Your task to perform on an android device: Go to CNN.com Image 0: 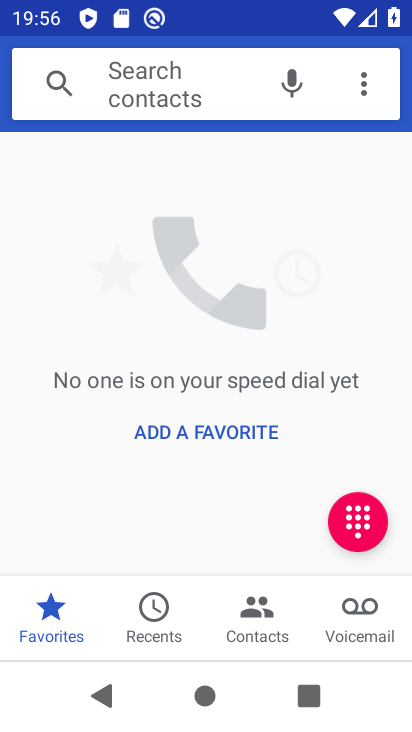
Step 0: press home button
Your task to perform on an android device: Go to CNN.com Image 1: 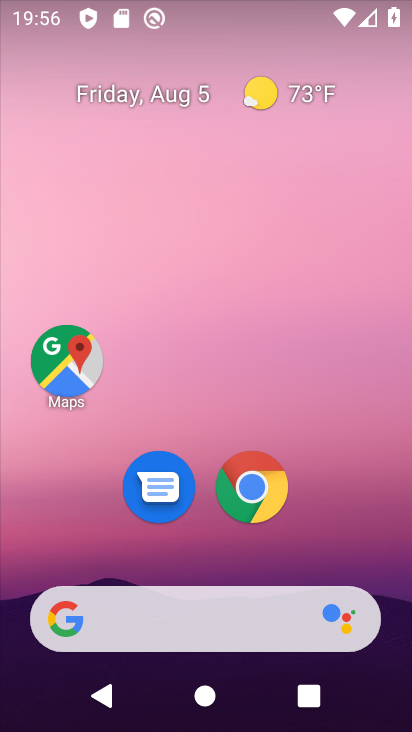
Step 1: click (258, 480)
Your task to perform on an android device: Go to CNN.com Image 2: 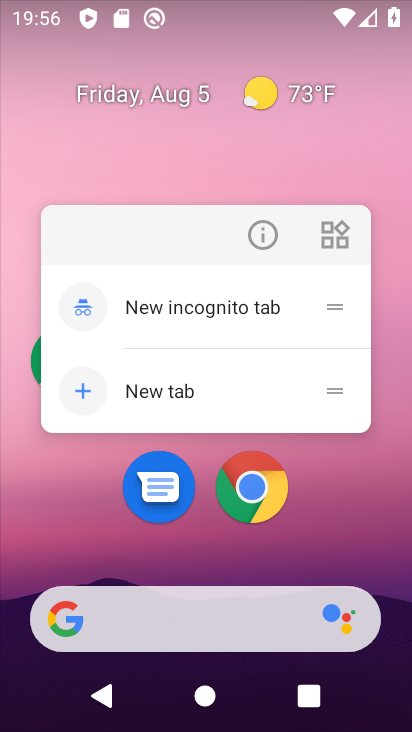
Step 2: click (253, 492)
Your task to perform on an android device: Go to CNN.com Image 3: 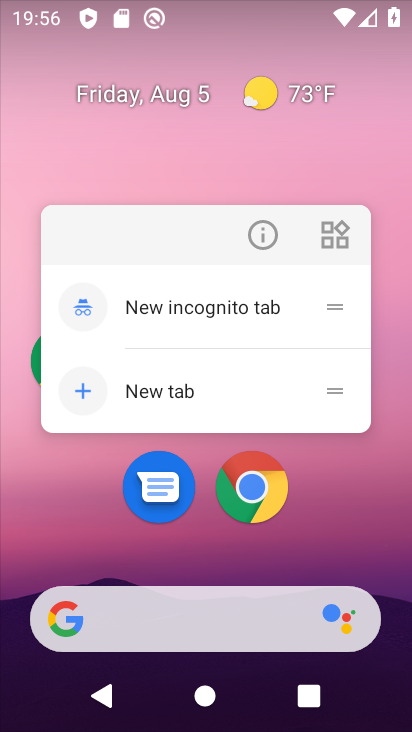
Step 3: click (253, 493)
Your task to perform on an android device: Go to CNN.com Image 4: 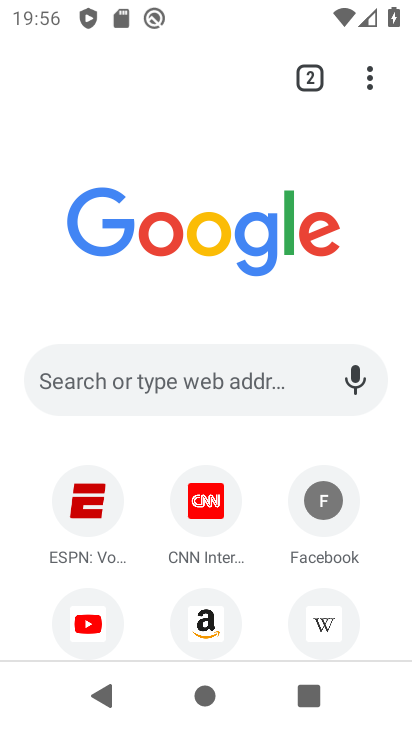
Step 4: click (199, 498)
Your task to perform on an android device: Go to CNN.com Image 5: 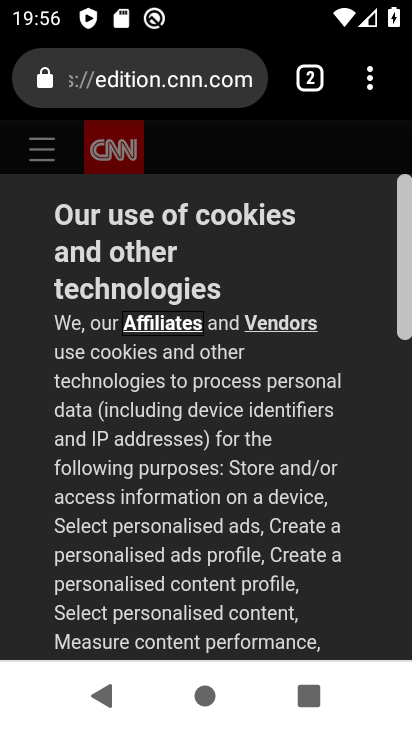
Step 5: drag from (248, 574) to (407, 169)
Your task to perform on an android device: Go to CNN.com Image 6: 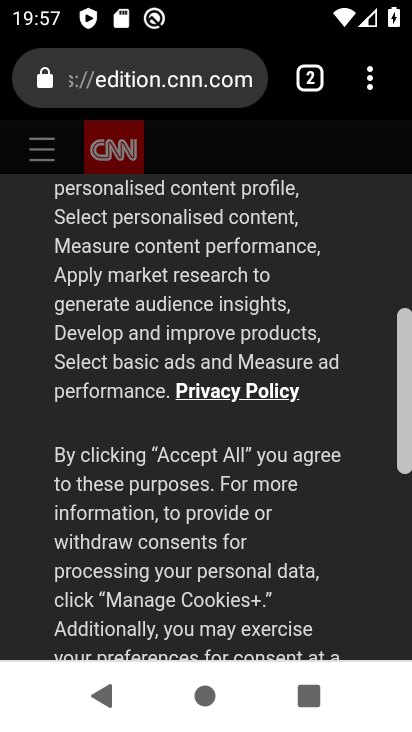
Step 6: drag from (182, 590) to (381, 22)
Your task to perform on an android device: Go to CNN.com Image 7: 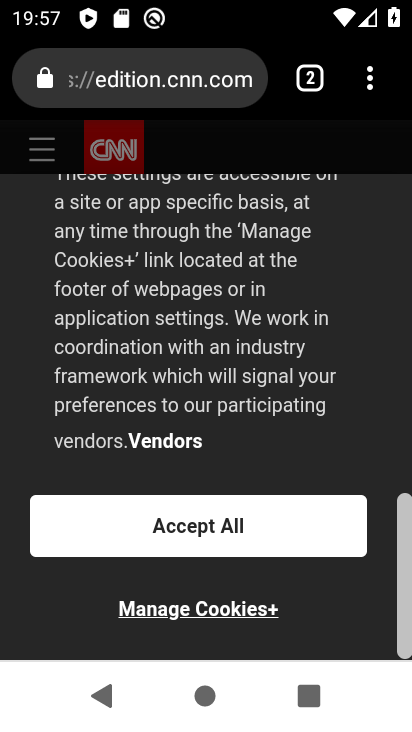
Step 7: click (197, 533)
Your task to perform on an android device: Go to CNN.com Image 8: 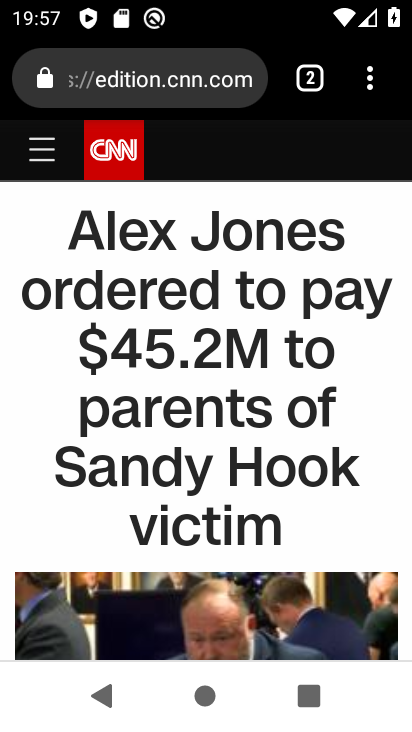
Step 8: task complete